Your task to perform on an android device: Check the weather Image 0: 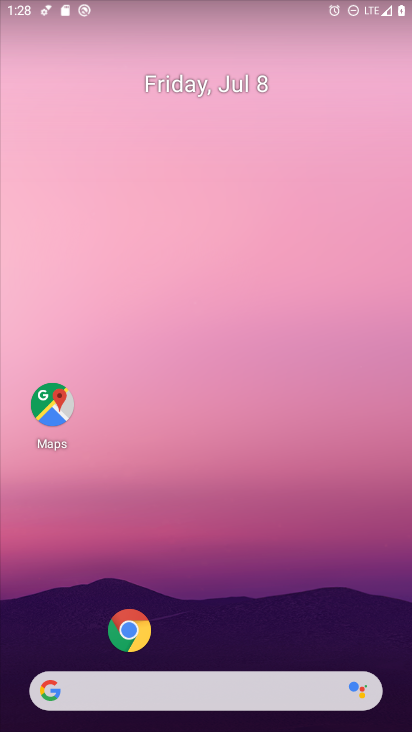
Step 0: drag from (217, 674) to (290, 207)
Your task to perform on an android device: Check the weather Image 1: 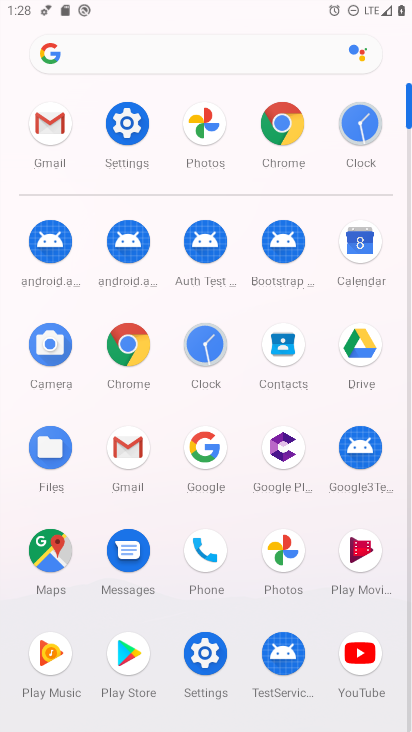
Step 1: click (132, 348)
Your task to perform on an android device: Check the weather Image 2: 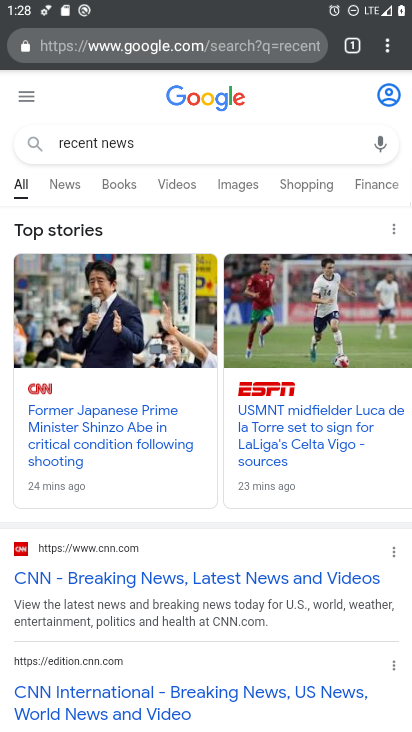
Step 2: click (157, 145)
Your task to perform on an android device: Check the weather Image 3: 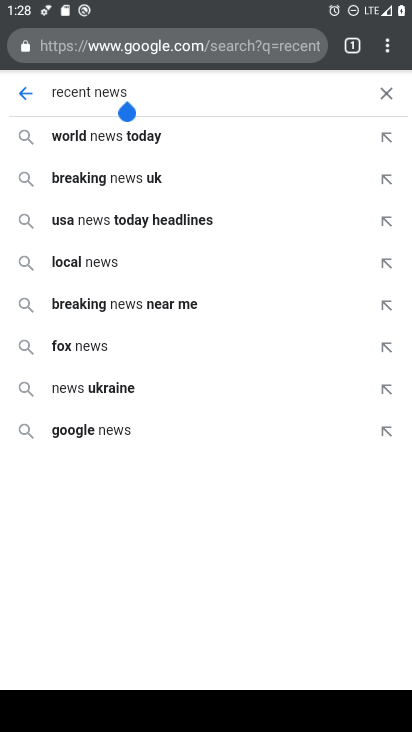
Step 3: click (160, 54)
Your task to perform on an android device: Check the weather Image 4: 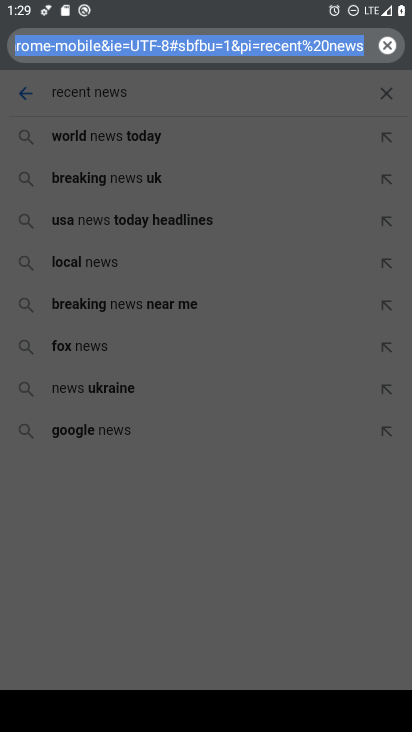
Step 4: click (381, 42)
Your task to perform on an android device: Check the weather Image 5: 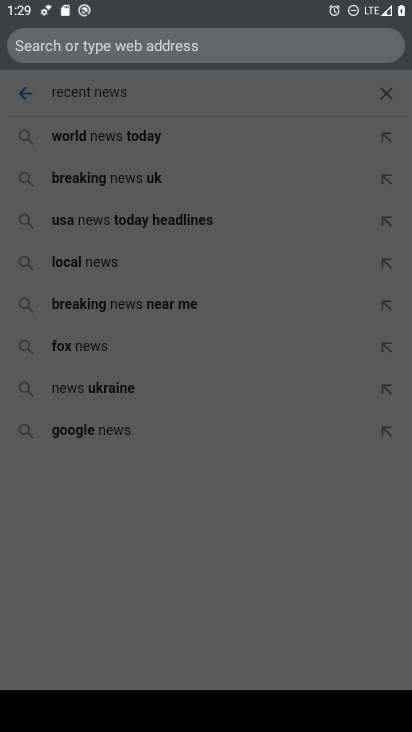
Step 5: type "check the weather"
Your task to perform on an android device: Check the weather Image 6: 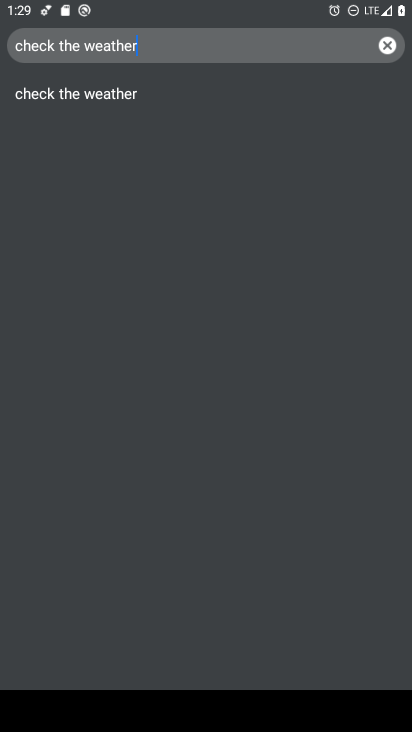
Step 6: click (122, 92)
Your task to perform on an android device: Check the weather Image 7: 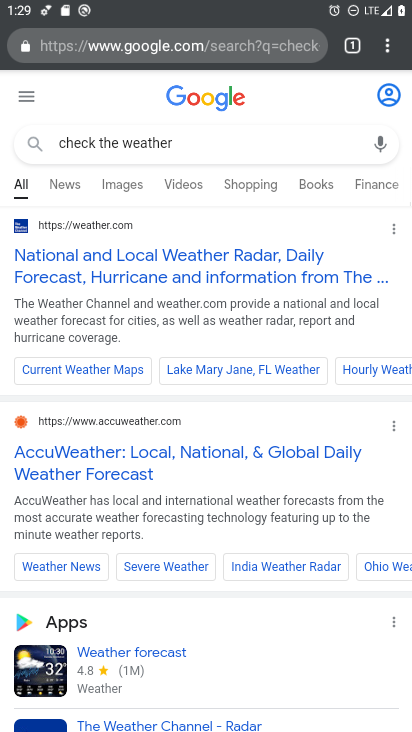
Step 7: task complete